Your task to perform on an android device: Open the stopwatch Image 0: 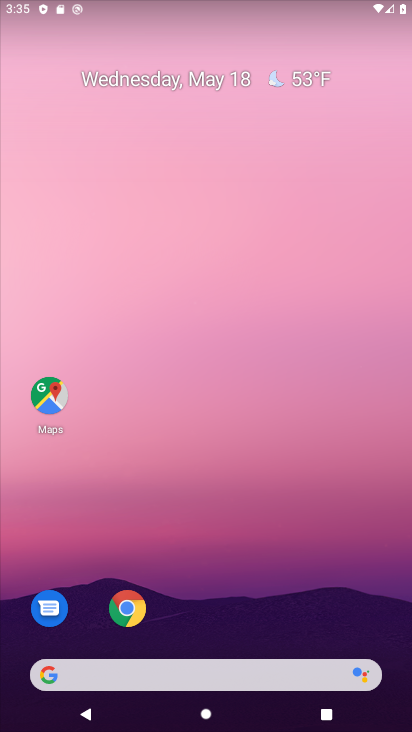
Step 0: drag from (228, 710) to (228, 74)
Your task to perform on an android device: Open the stopwatch Image 1: 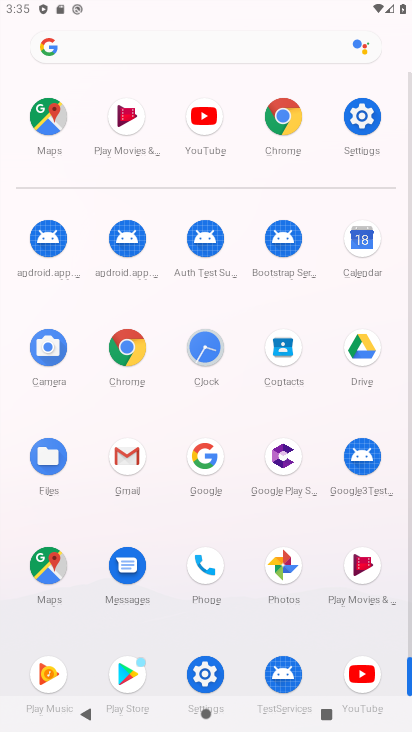
Step 1: click (206, 350)
Your task to perform on an android device: Open the stopwatch Image 2: 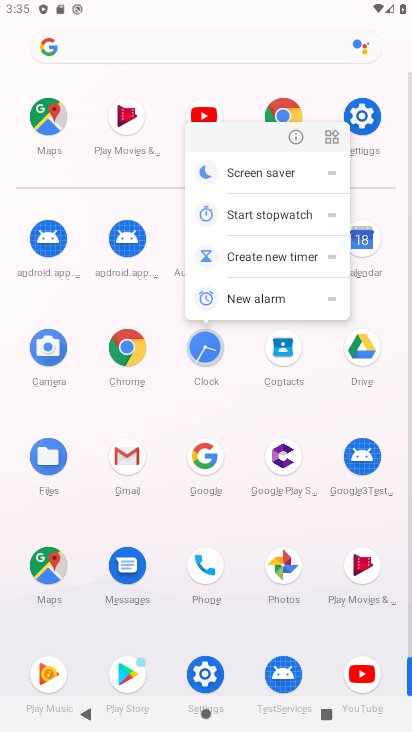
Step 2: click (188, 359)
Your task to perform on an android device: Open the stopwatch Image 3: 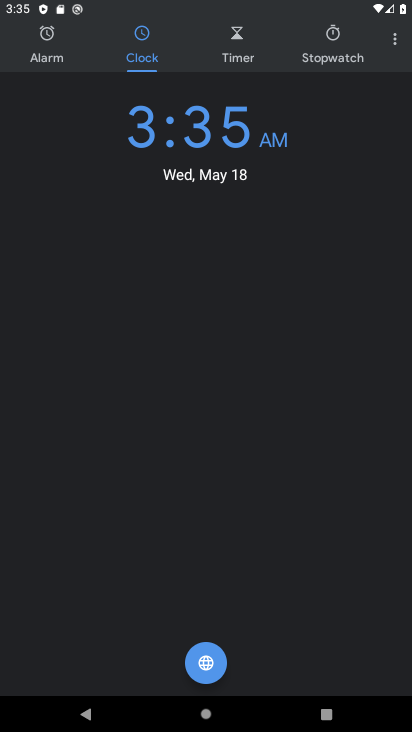
Step 3: click (331, 55)
Your task to perform on an android device: Open the stopwatch Image 4: 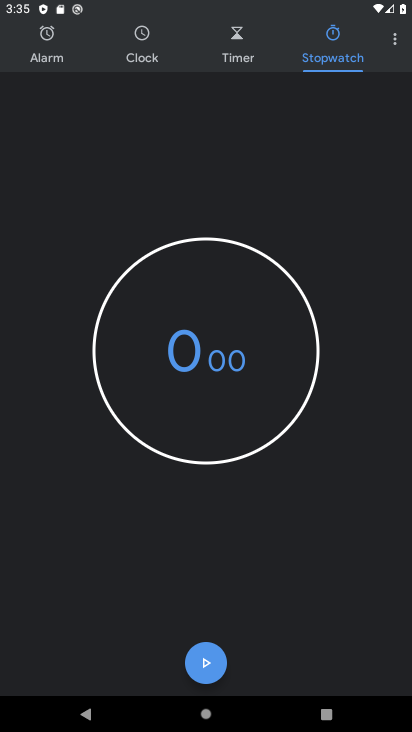
Step 4: click (201, 671)
Your task to perform on an android device: Open the stopwatch Image 5: 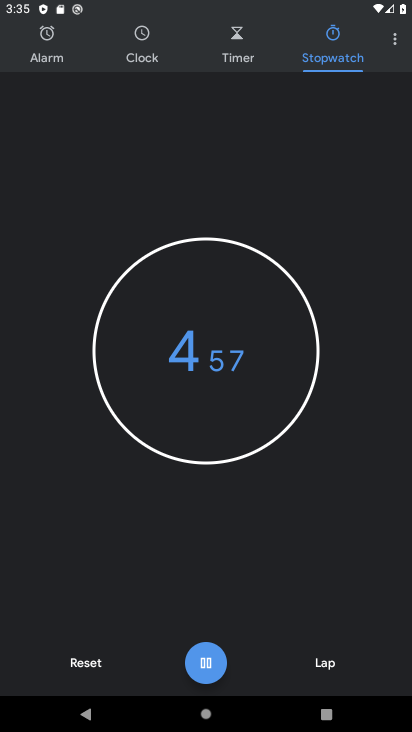
Step 5: task complete